Your task to perform on an android device: Turn off the flashlight Image 0: 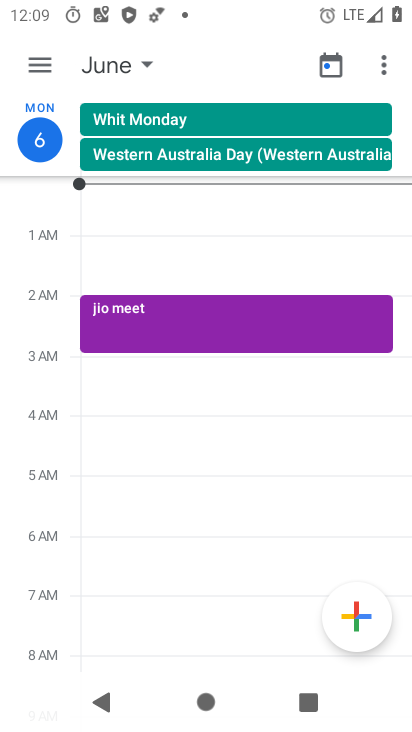
Step 0: press home button
Your task to perform on an android device: Turn off the flashlight Image 1: 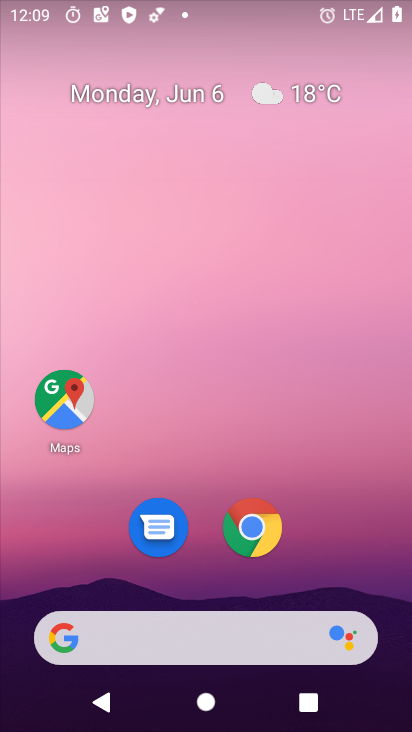
Step 1: task complete